Your task to perform on an android device: Search for pizza restaurants on Maps Image 0: 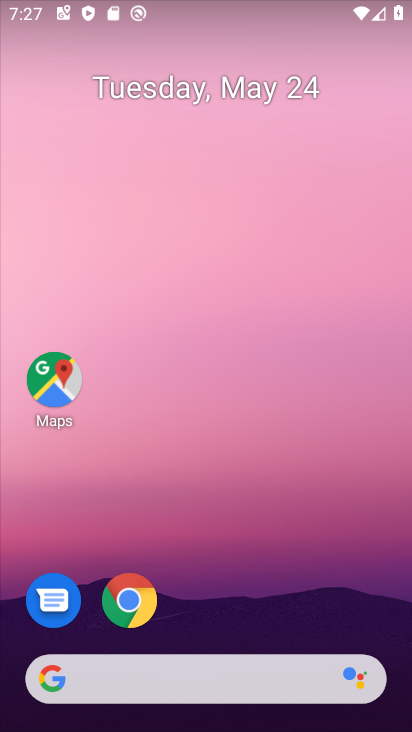
Step 0: click (187, 684)
Your task to perform on an android device: Search for pizza restaurants on Maps Image 1: 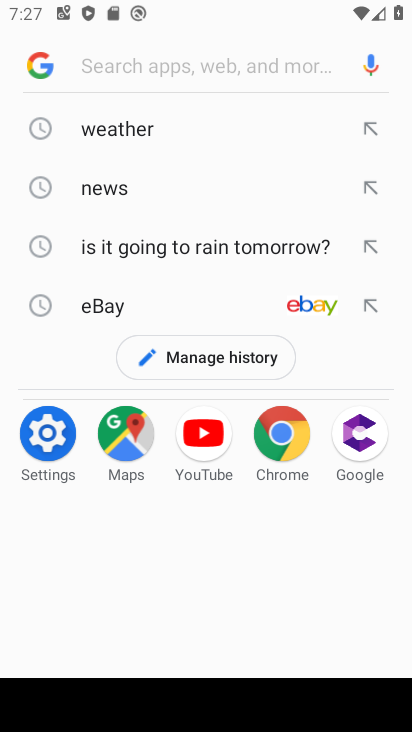
Step 1: press home button
Your task to perform on an android device: Search for pizza restaurants on Maps Image 2: 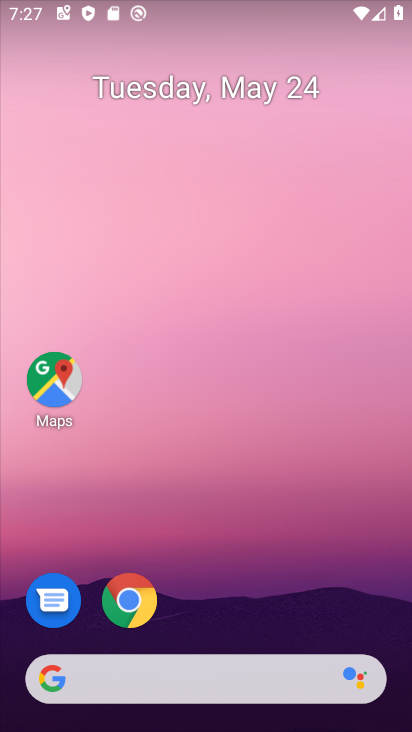
Step 2: click (49, 373)
Your task to perform on an android device: Search for pizza restaurants on Maps Image 3: 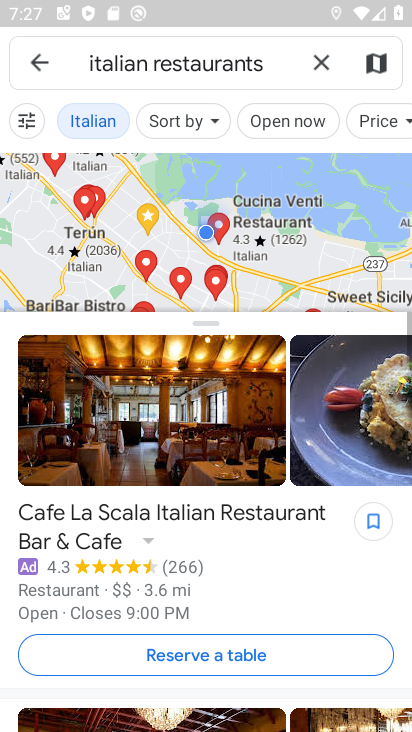
Step 3: click (311, 54)
Your task to perform on an android device: Search for pizza restaurants on Maps Image 4: 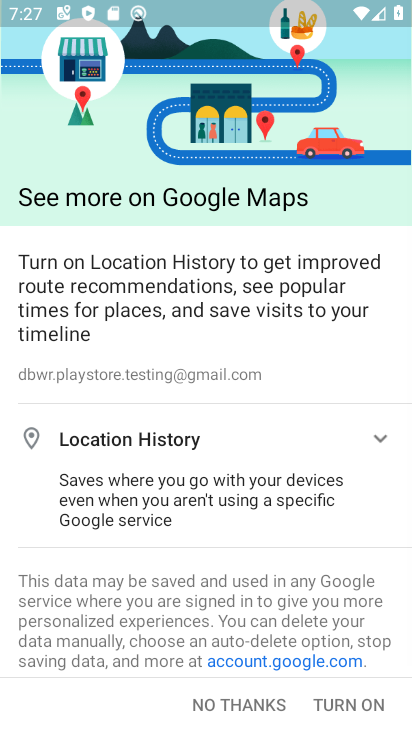
Step 4: click (212, 708)
Your task to perform on an android device: Search for pizza restaurants on Maps Image 5: 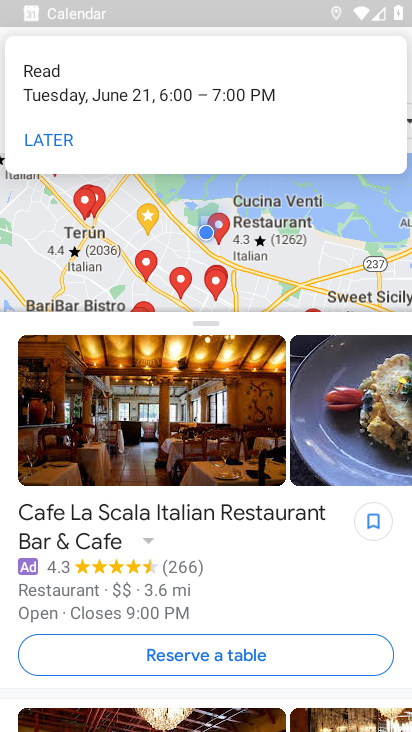
Step 5: click (55, 130)
Your task to perform on an android device: Search for pizza restaurants on Maps Image 6: 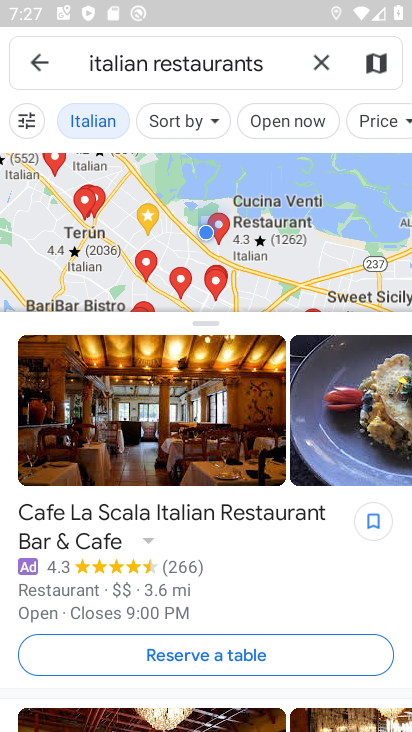
Step 6: click (314, 60)
Your task to perform on an android device: Search for pizza restaurants on Maps Image 7: 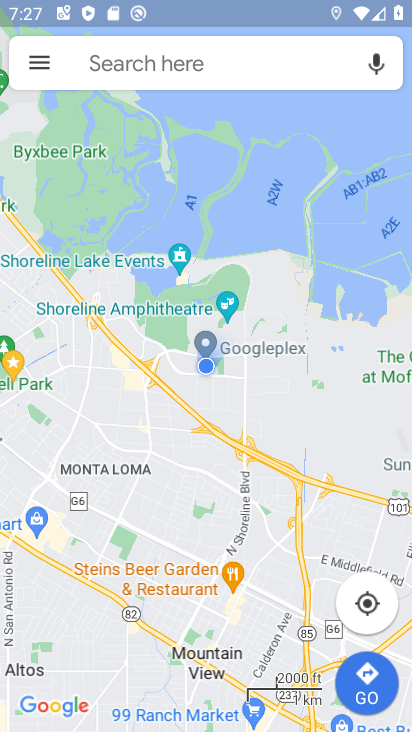
Step 7: click (227, 66)
Your task to perform on an android device: Search for pizza restaurants on Maps Image 8: 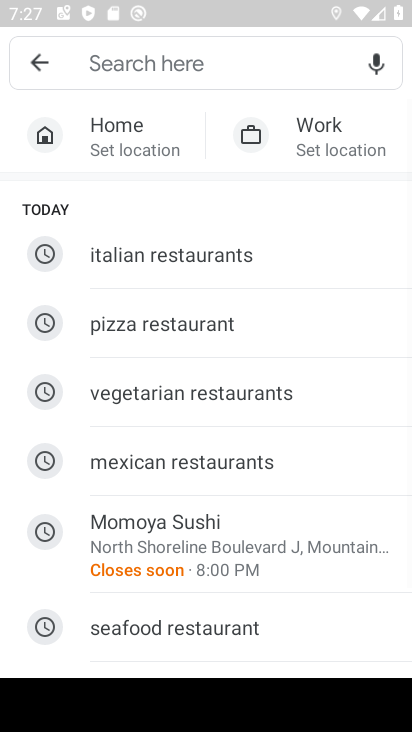
Step 8: click (171, 338)
Your task to perform on an android device: Search for pizza restaurants on Maps Image 9: 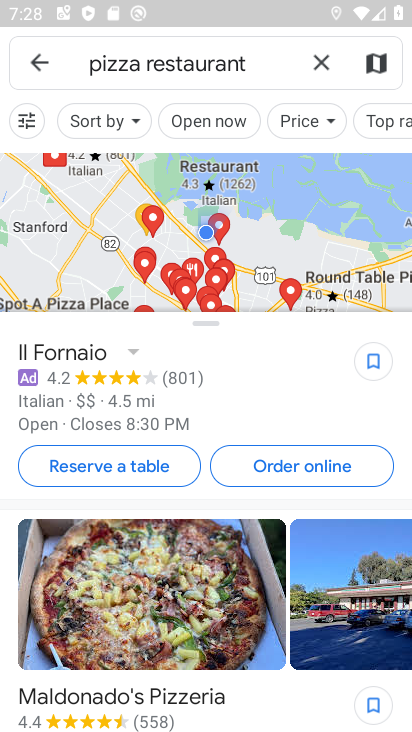
Step 9: task complete